Your task to perform on an android device: toggle translation in the chrome app Image 0: 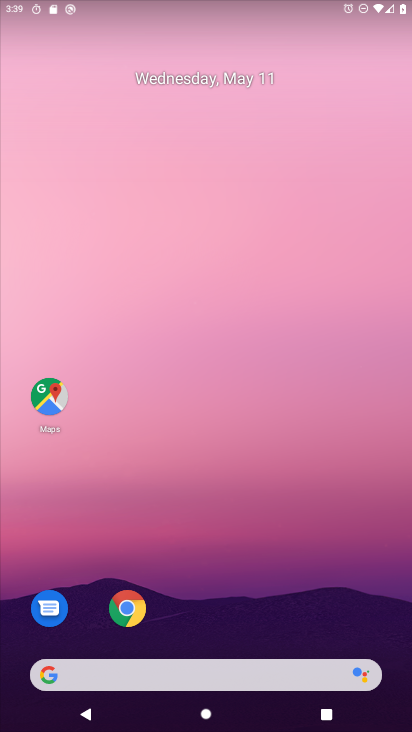
Step 0: click (273, 108)
Your task to perform on an android device: toggle translation in the chrome app Image 1: 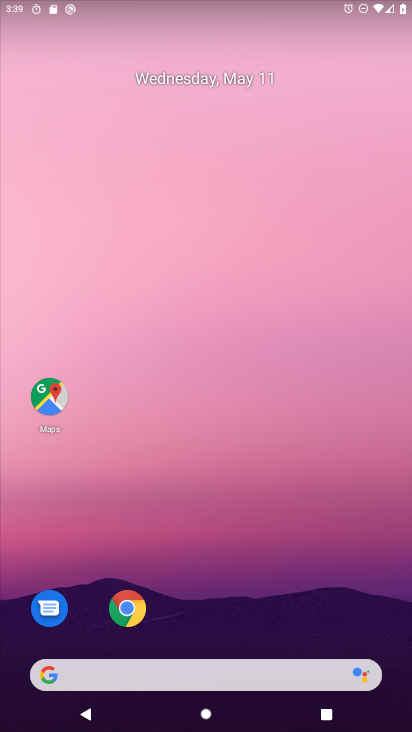
Step 1: drag from (251, 598) to (181, 212)
Your task to perform on an android device: toggle translation in the chrome app Image 2: 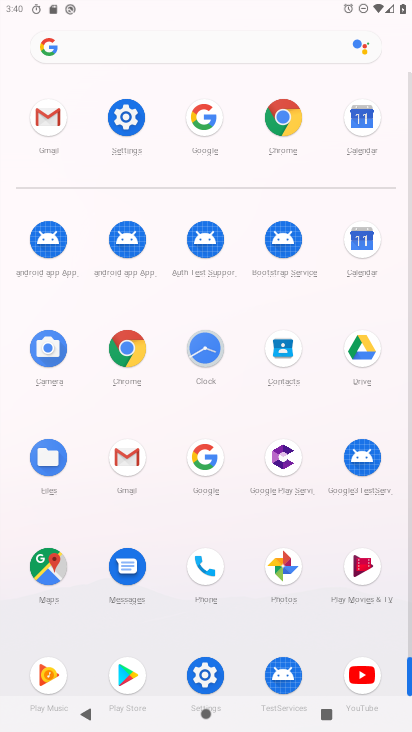
Step 2: click (284, 128)
Your task to perform on an android device: toggle translation in the chrome app Image 3: 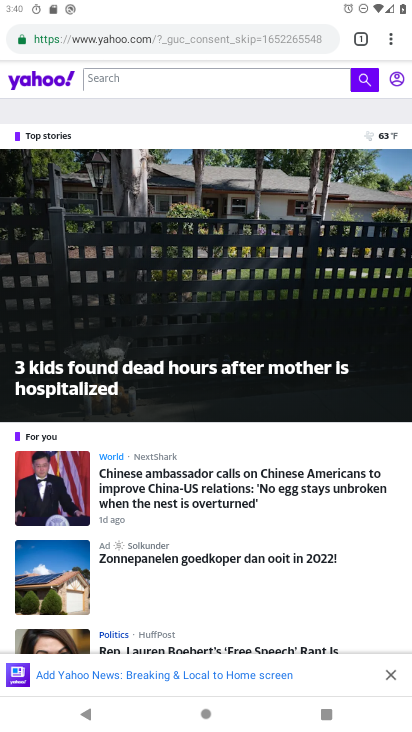
Step 3: click (396, 37)
Your task to perform on an android device: toggle translation in the chrome app Image 4: 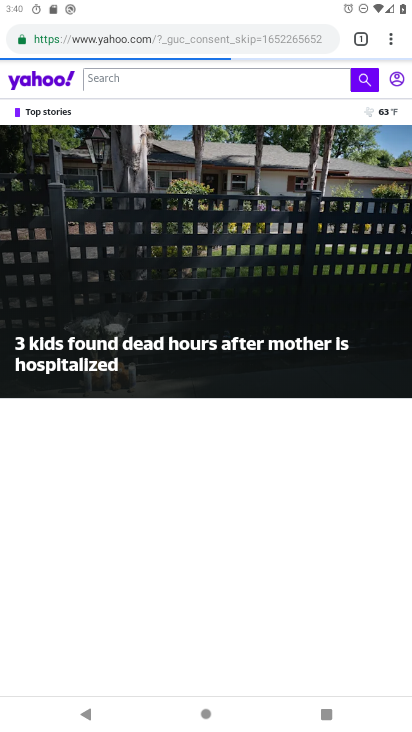
Step 4: click (390, 38)
Your task to perform on an android device: toggle translation in the chrome app Image 5: 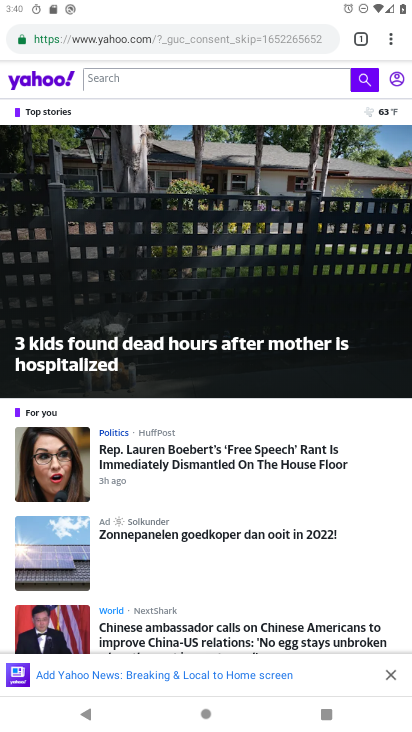
Step 5: click (382, 33)
Your task to perform on an android device: toggle translation in the chrome app Image 6: 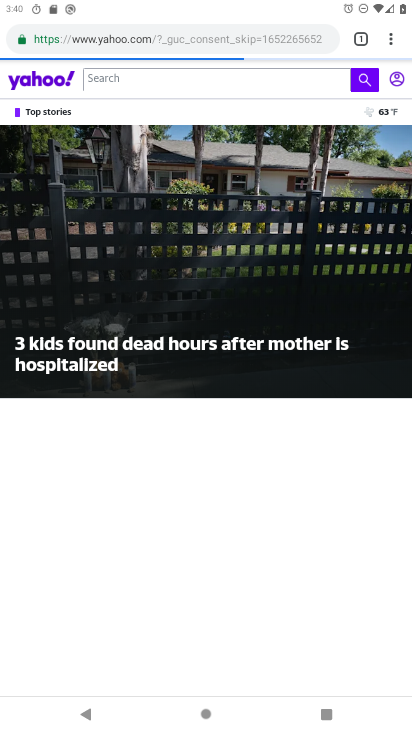
Step 6: click (394, 41)
Your task to perform on an android device: toggle translation in the chrome app Image 7: 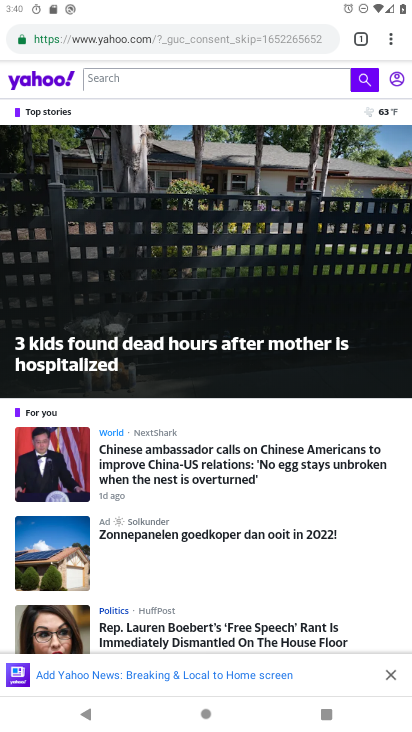
Step 7: click (394, 41)
Your task to perform on an android device: toggle translation in the chrome app Image 8: 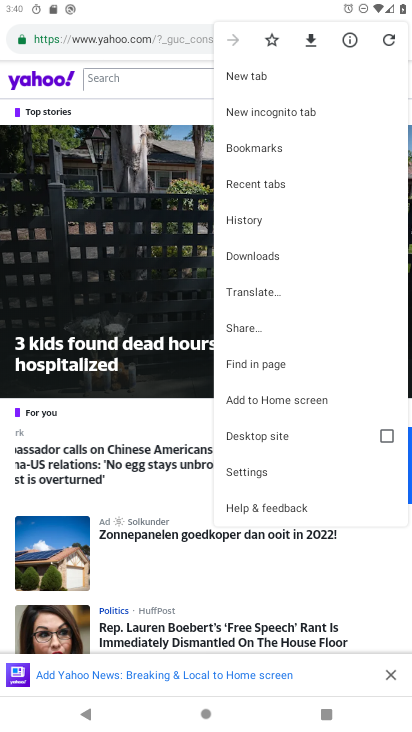
Step 8: click (289, 286)
Your task to perform on an android device: toggle translation in the chrome app Image 9: 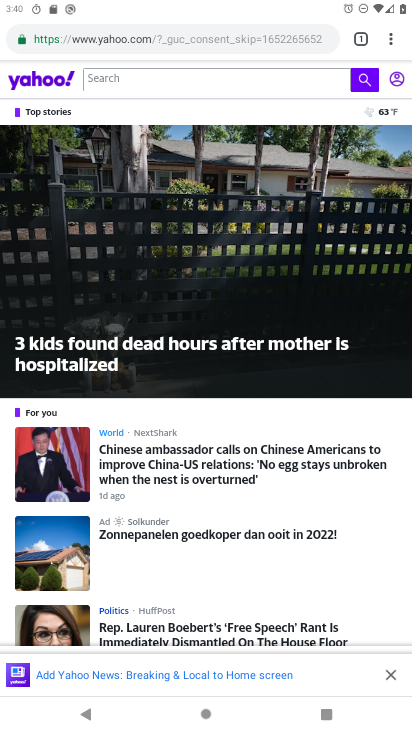
Step 9: click (389, 678)
Your task to perform on an android device: toggle translation in the chrome app Image 10: 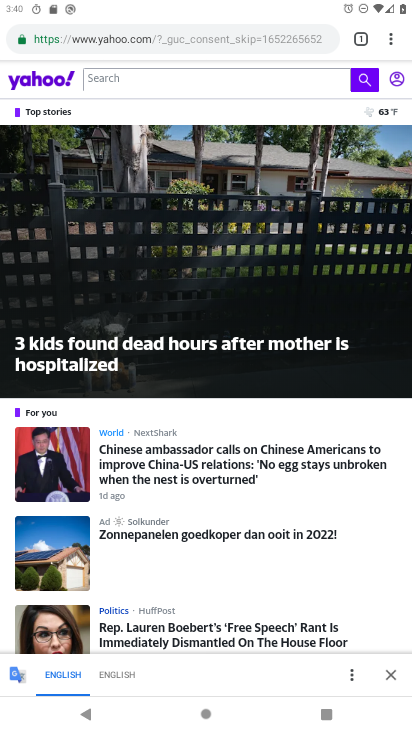
Step 10: click (355, 674)
Your task to perform on an android device: toggle translation in the chrome app Image 11: 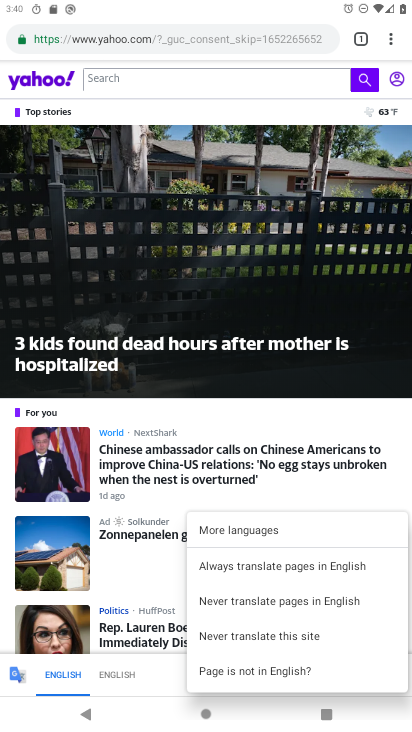
Step 11: click (273, 612)
Your task to perform on an android device: toggle translation in the chrome app Image 12: 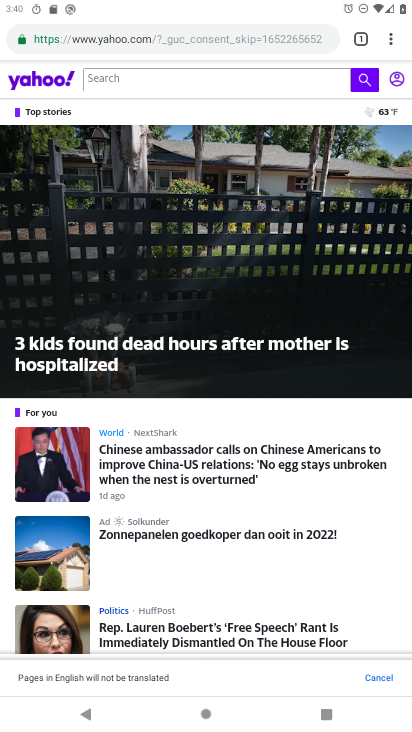
Step 12: task complete